Your task to perform on an android device: Open the stopwatch Image 0: 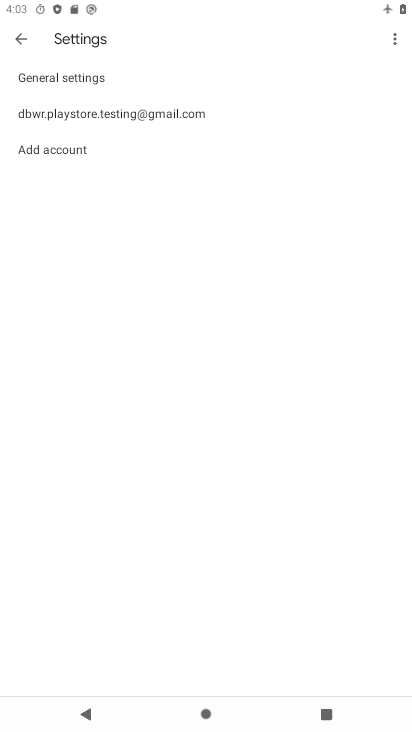
Step 0: press home button
Your task to perform on an android device: Open the stopwatch Image 1: 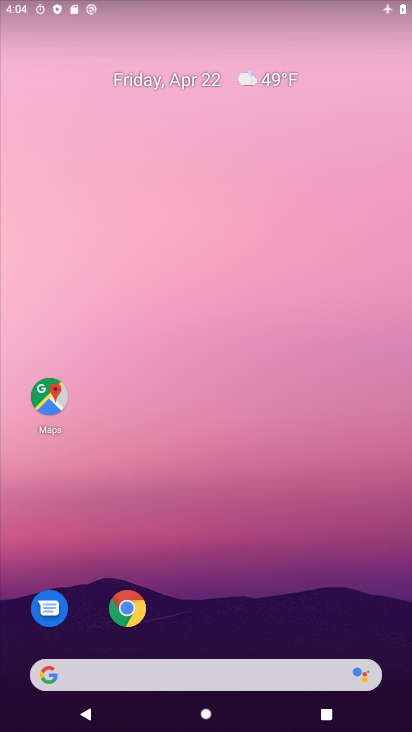
Step 1: drag from (268, 596) to (240, 108)
Your task to perform on an android device: Open the stopwatch Image 2: 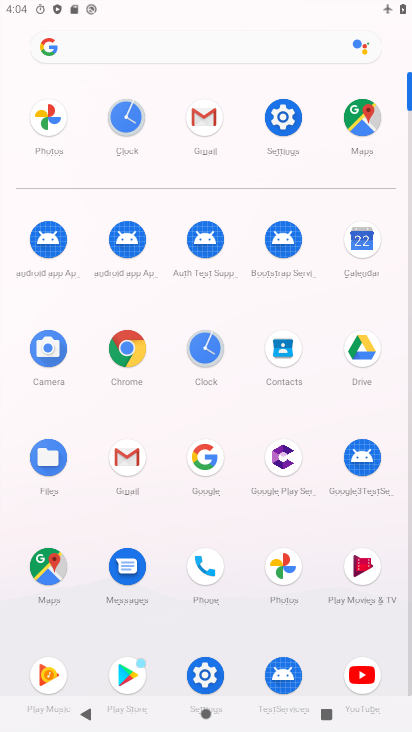
Step 2: click (201, 342)
Your task to perform on an android device: Open the stopwatch Image 3: 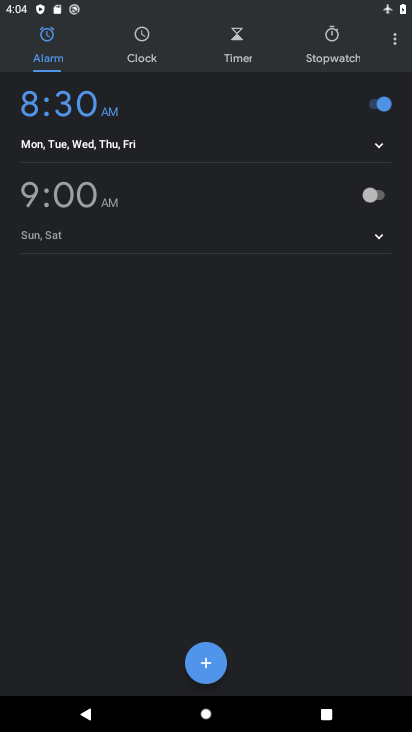
Step 3: click (332, 36)
Your task to perform on an android device: Open the stopwatch Image 4: 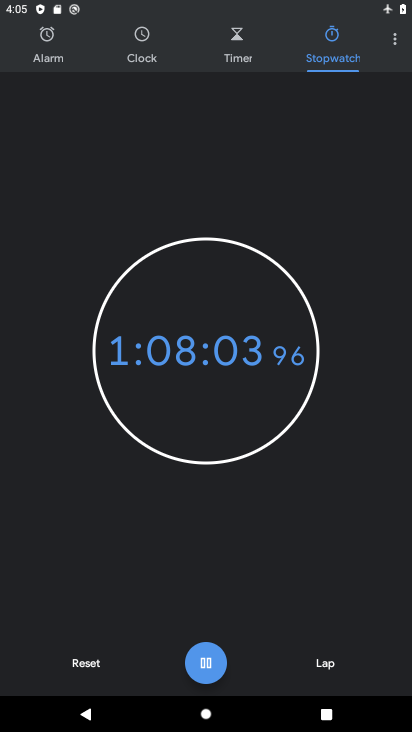
Step 4: task complete